Your task to perform on an android device: turn notification dots on Image 0: 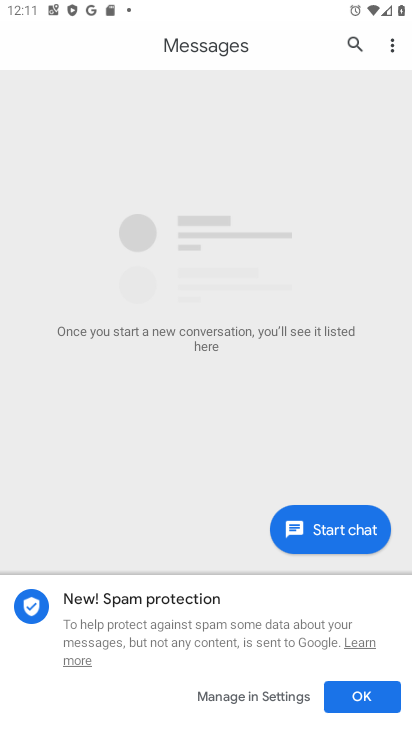
Step 0: press home button
Your task to perform on an android device: turn notification dots on Image 1: 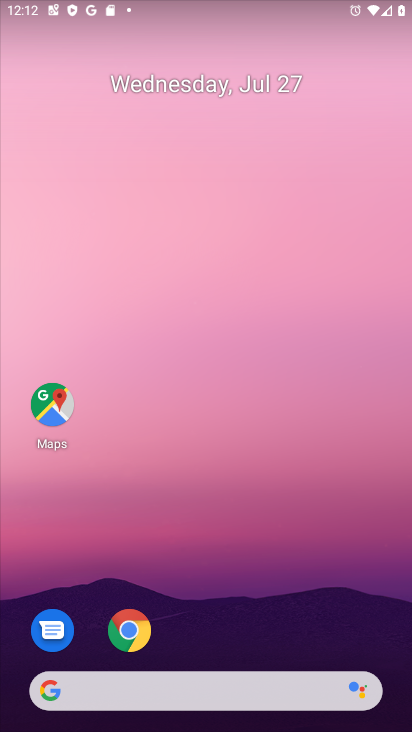
Step 1: drag from (153, 704) to (151, 285)
Your task to perform on an android device: turn notification dots on Image 2: 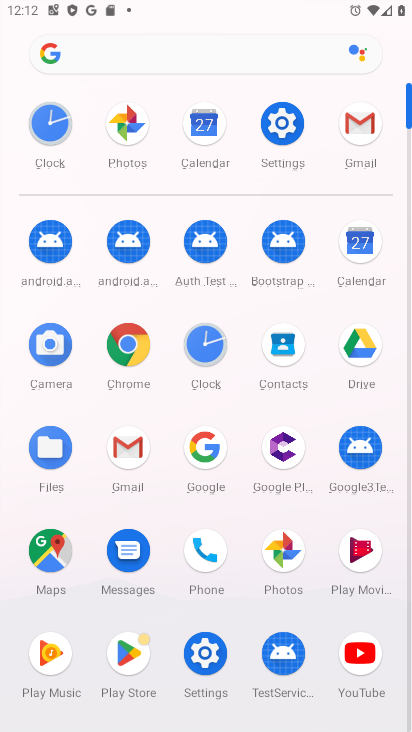
Step 2: click (296, 111)
Your task to perform on an android device: turn notification dots on Image 3: 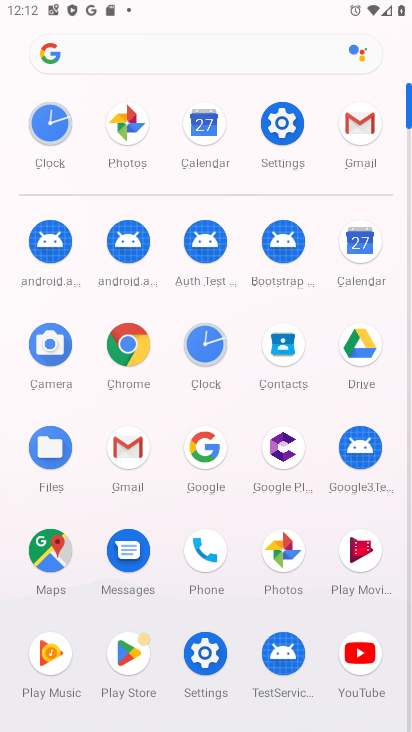
Step 3: click (296, 111)
Your task to perform on an android device: turn notification dots on Image 4: 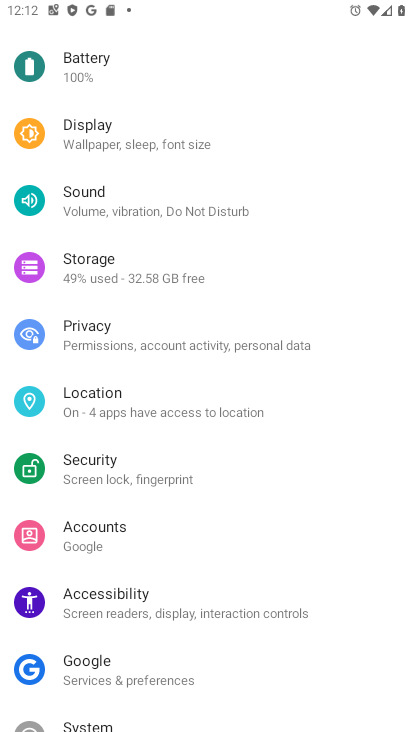
Step 4: drag from (257, 147) to (231, 722)
Your task to perform on an android device: turn notification dots on Image 5: 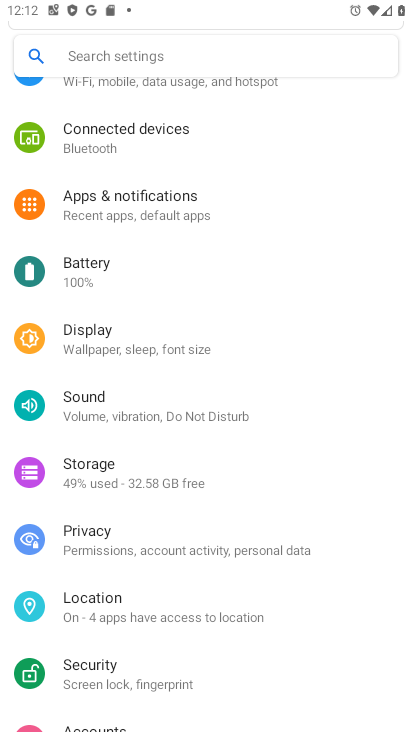
Step 5: click (209, 211)
Your task to perform on an android device: turn notification dots on Image 6: 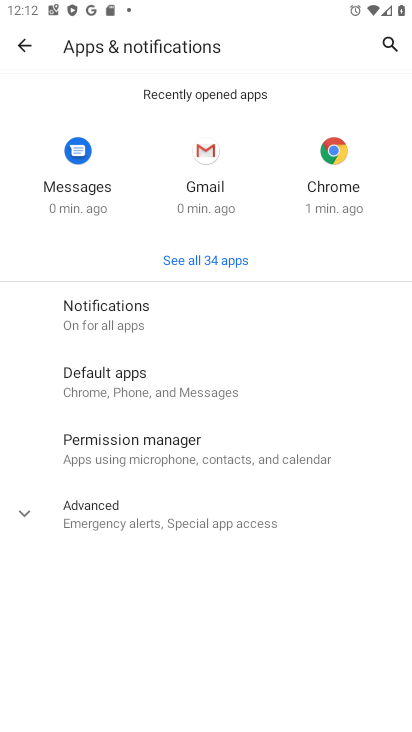
Step 6: click (207, 299)
Your task to perform on an android device: turn notification dots on Image 7: 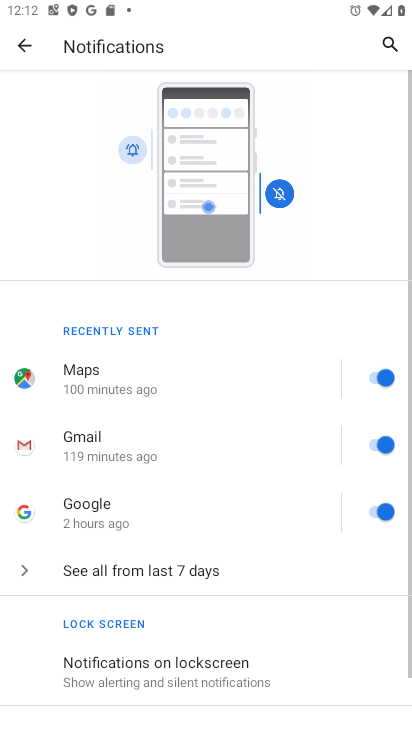
Step 7: drag from (286, 711) to (238, 157)
Your task to perform on an android device: turn notification dots on Image 8: 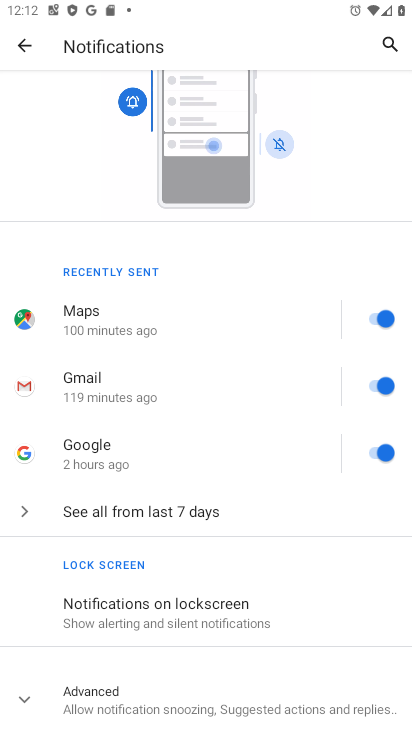
Step 8: click (133, 693)
Your task to perform on an android device: turn notification dots on Image 9: 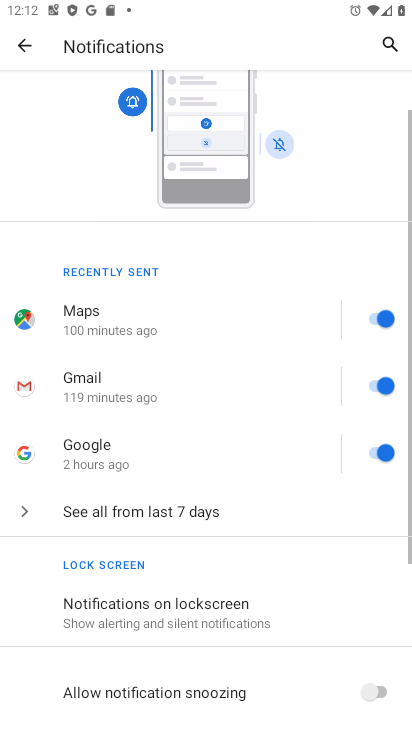
Step 9: task complete